Your task to perform on an android device: Play the latest video from the New York Times Image 0: 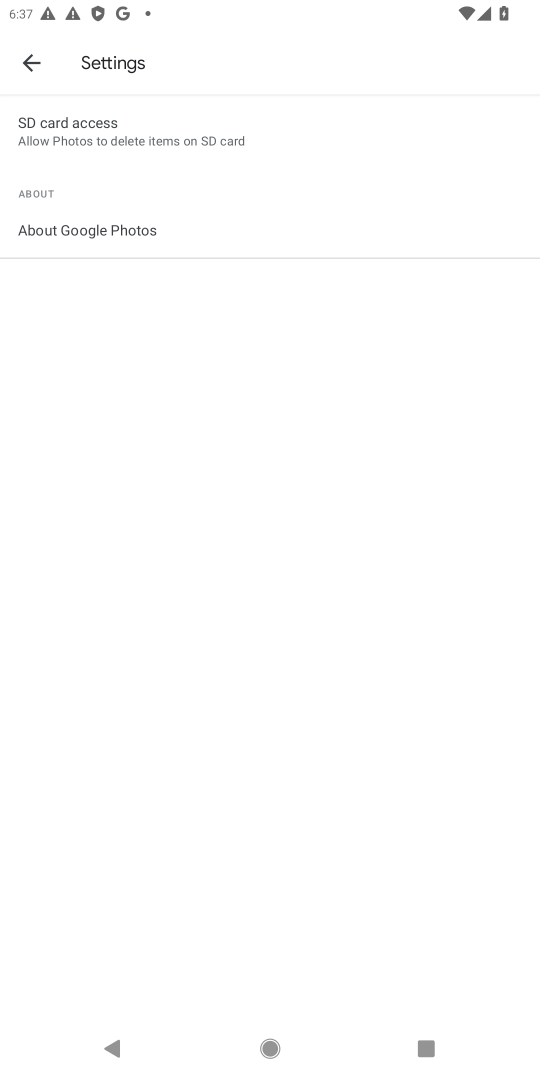
Step 0: press home button
Your task to perform on an android device: Play the latest video from the New York Times Image 1: 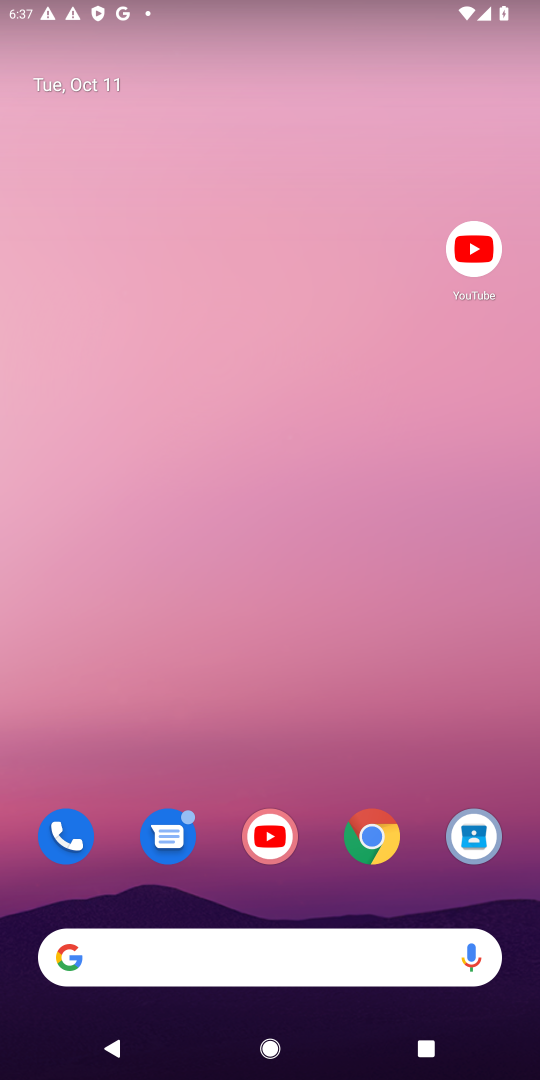
Step 1: click (374, 837)
Your task to perform on an android device: Play the latest video from the New York Times Image 2: 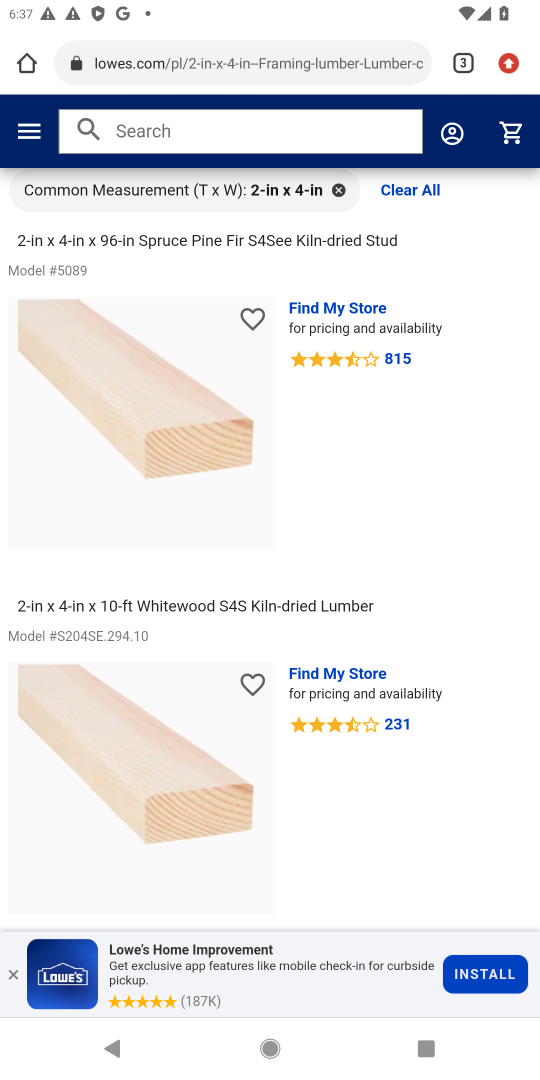
Step 2: click (336, 53)
Your task to perform on an android device: Play the latest video from the New York Times Image 3: 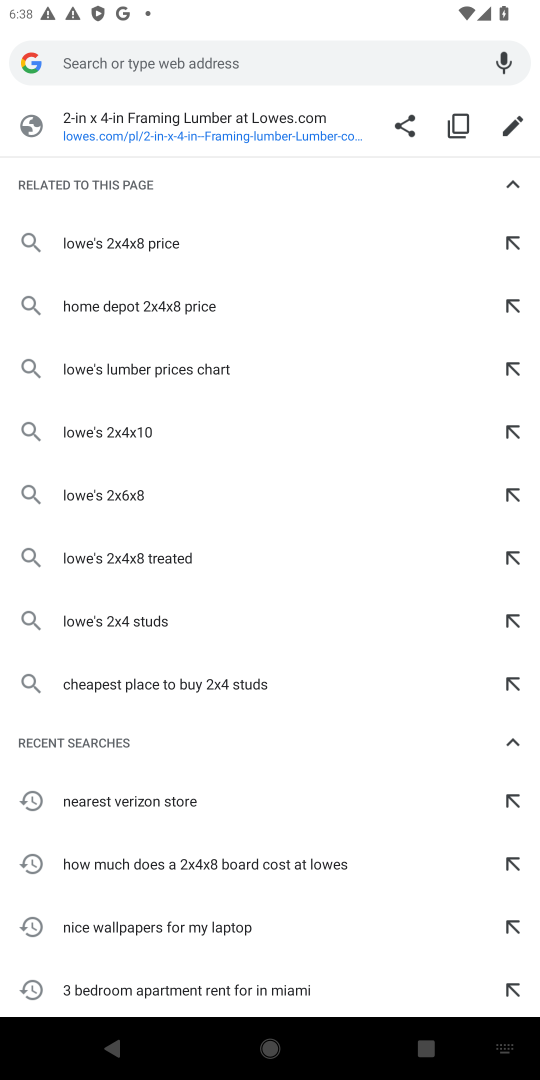
Step 3: type " latest video from the New York Times"
Your task to perform on an android device: Play the latest video from the New York Times Image 4: 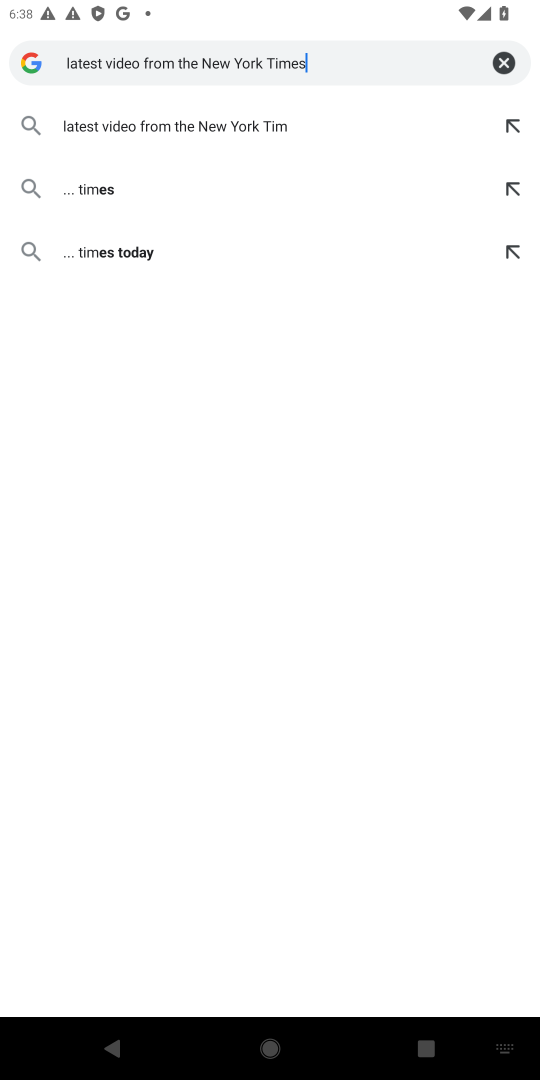
Step 4: press enter
Your task to perform on an android device: Play the latest video from the New York Times Image 5: 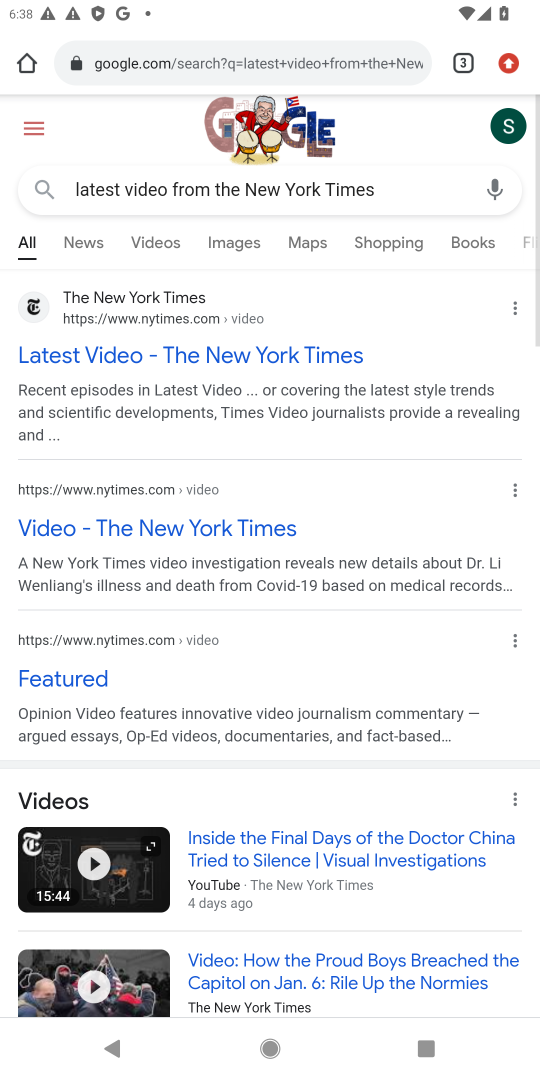
Step 5: drag from (225, 775) to (387, 420)
Your task to perform on an android device: Play the latest video from the New York Times Image 6: 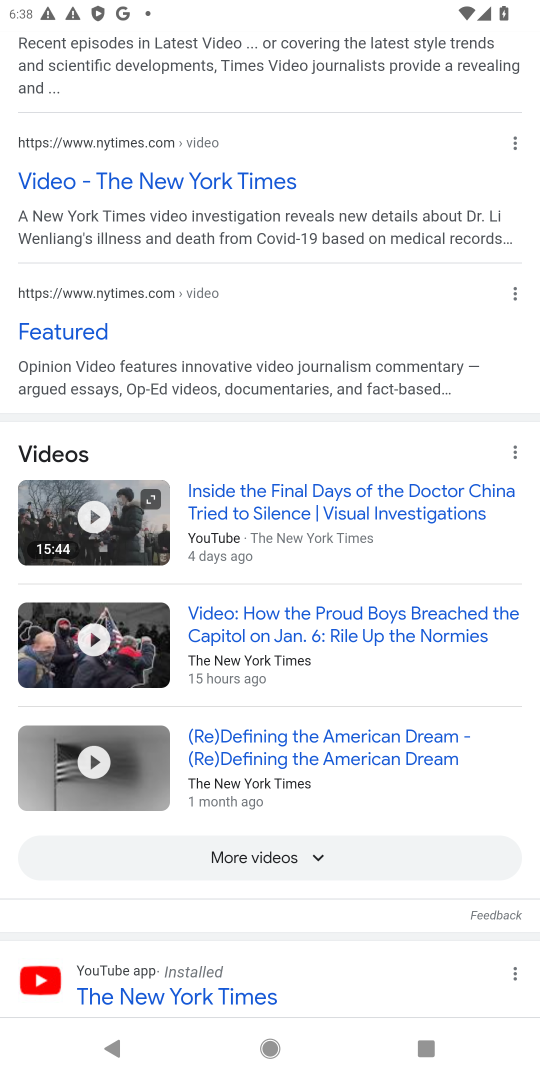
Step 6: click (96, 526)
Your task to perform on an android device: Play the latest video from the New York Times Image 7: 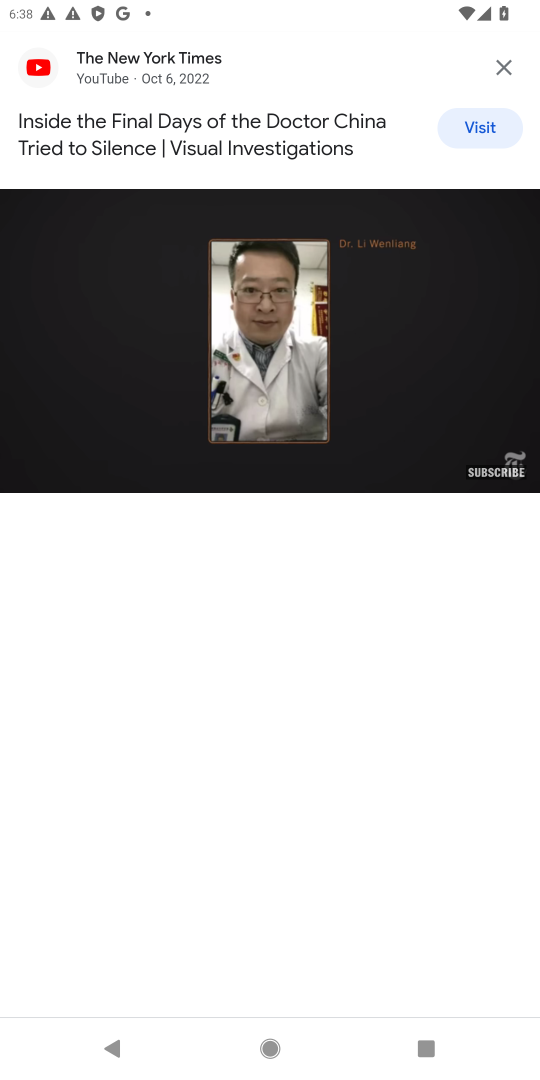
Step 7: click (255, 286)
Your task to perform on an android device: Play the latest video from the New York Times Image 8: 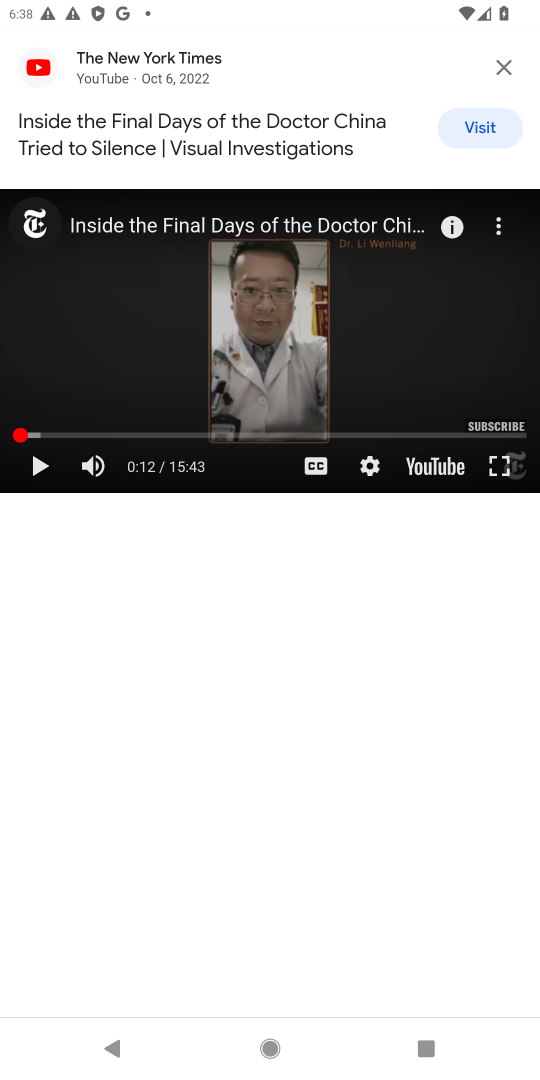
Step 8: click (267, 345)
Your task to perform on an android device: Play the latest video from the New York Times Image 9: 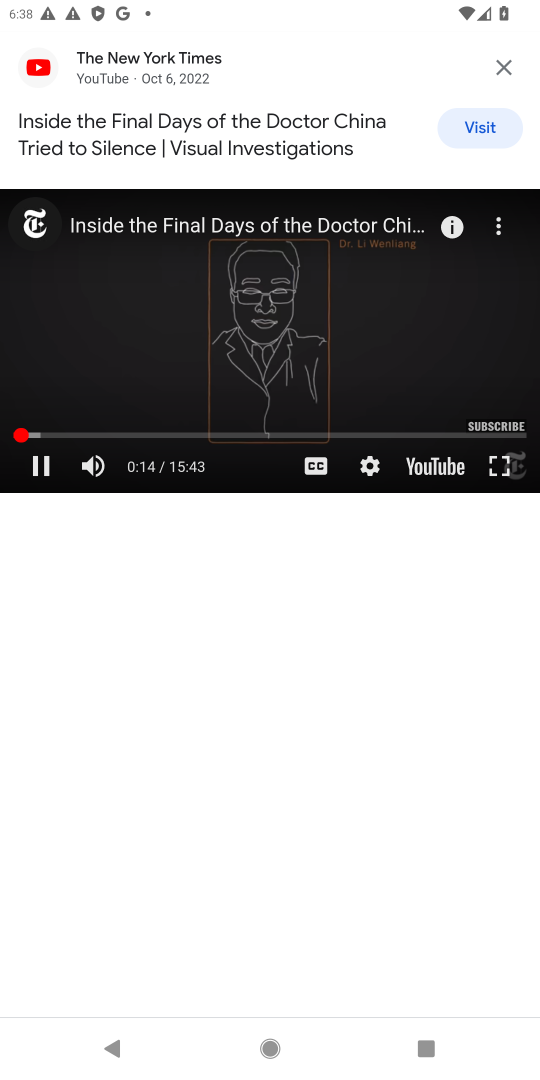
Step 9: click (283, 332)
Your task to perform on an android device: Play the latest video from the New York Times Image 10: 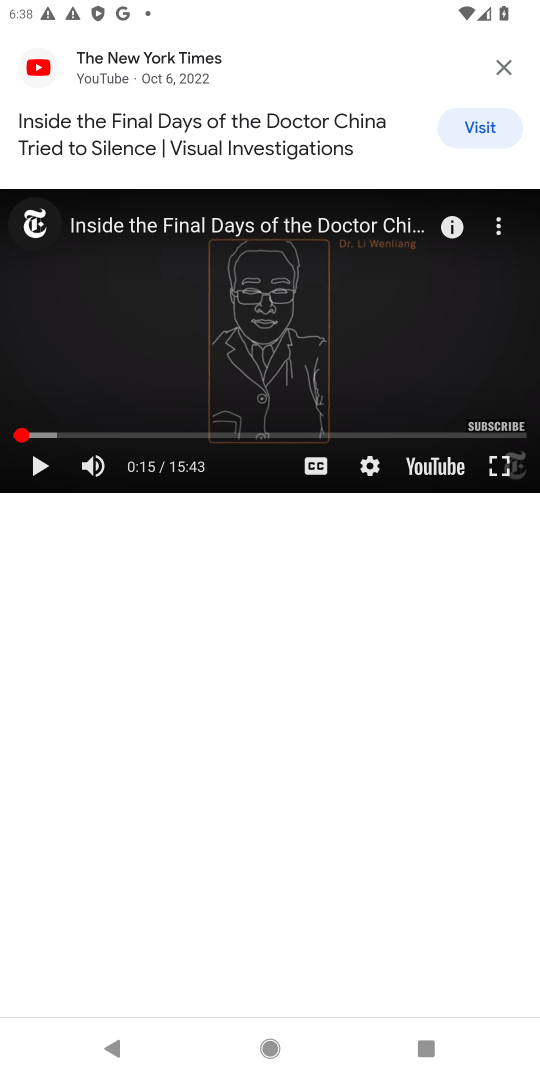
Step 10: task complete